Your task to perform on an android device: empty trash in google photos Image 0: 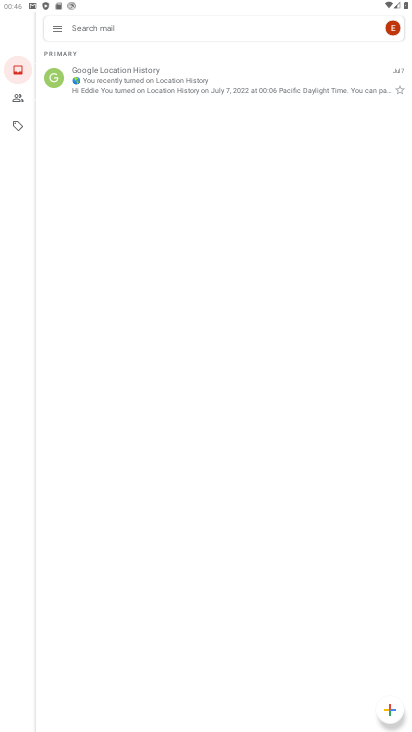
Step 0: press home button
Your task to perform on an android device: empty trash in google photos Image 1: 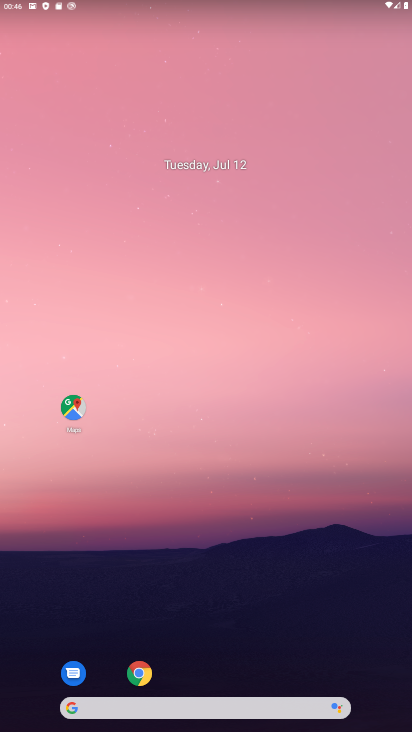
Step 1: drag from (312, 650) to (351, 255)
Your task to perform on an android device: empty trash in google photos Image 2: 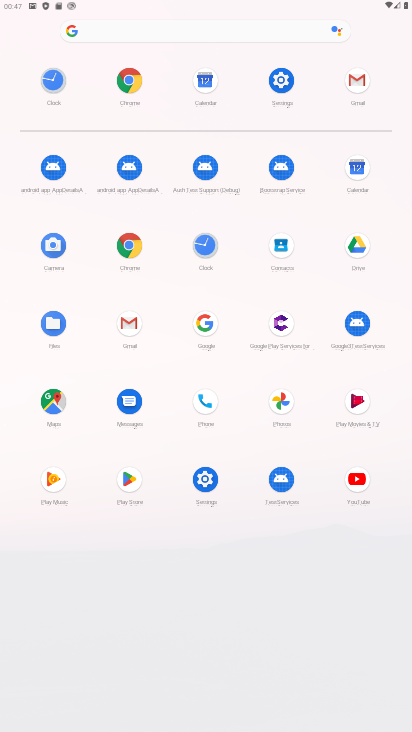
Step 2: click (358, 73)
Your task to perform on an android device: empty trash in google photos Image 3: 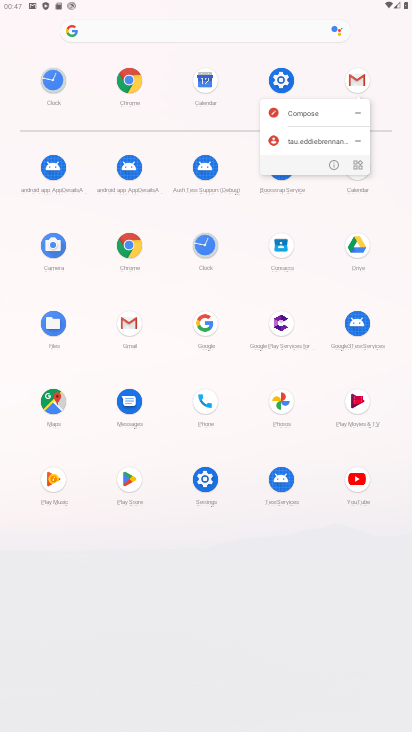
Step 3: click (347, 71)
Your task to perform on an android device: empty trash in google photos Image 4: 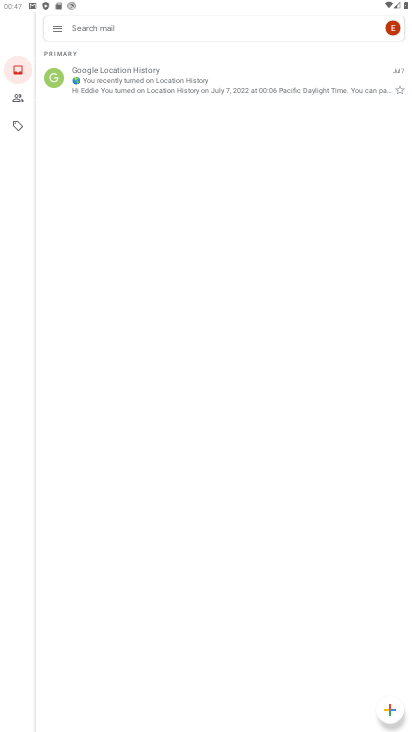
Step 4: click (54, 25)
Your task to perform on an android device: empty trash in google photos Image 5: 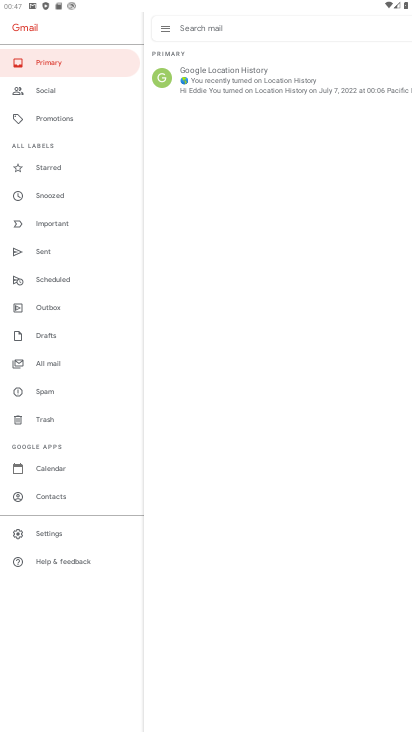
Step 5: click (38, 423)
Your task to perform on an android device: empty trash in google photos Image 6: 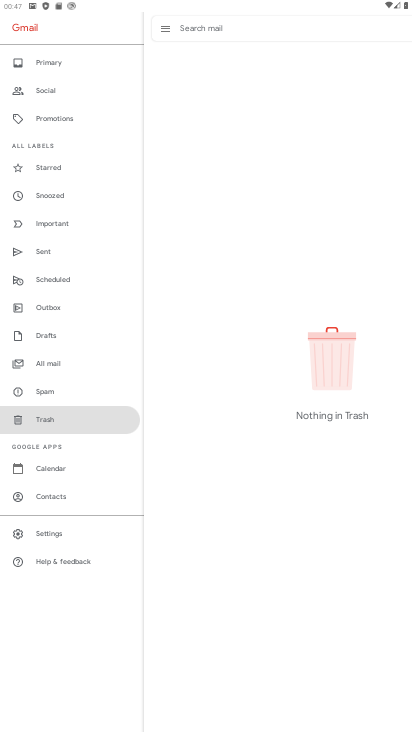
Step 6: task complete